Your task to perform on an android device: turn on location history Image 0: 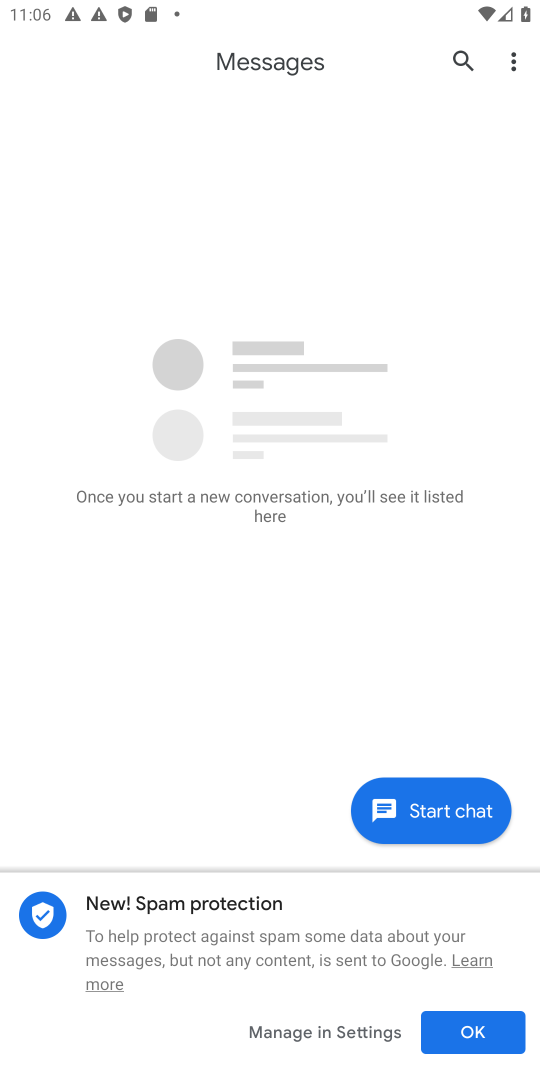
Step 0: press home button
Your task to perform on an android device: turn on location history Image 1: 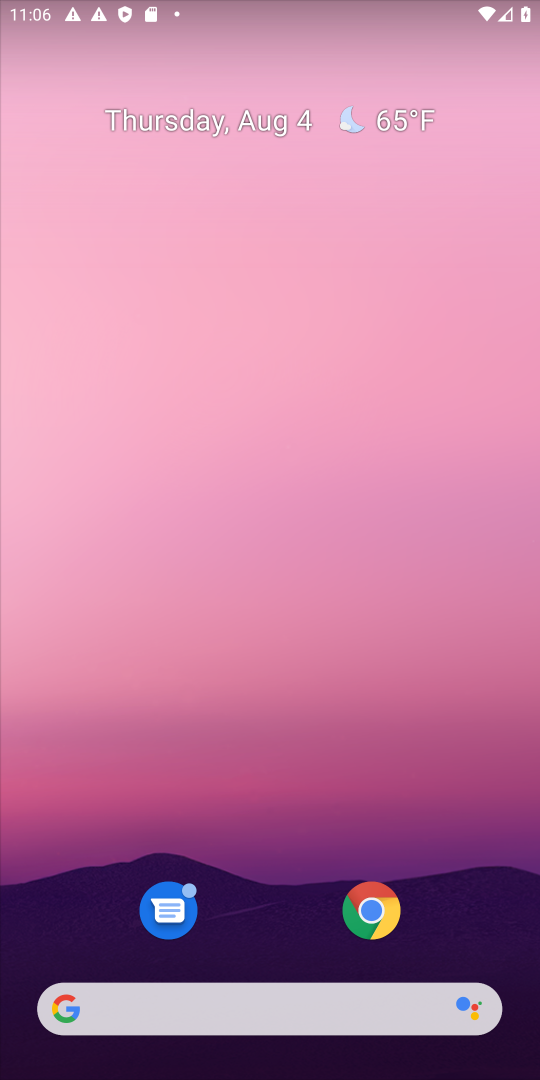
Step 1: drag from (240, 966) to (240, 329)
Your task to perform on an android device: turn on location history Image 2: 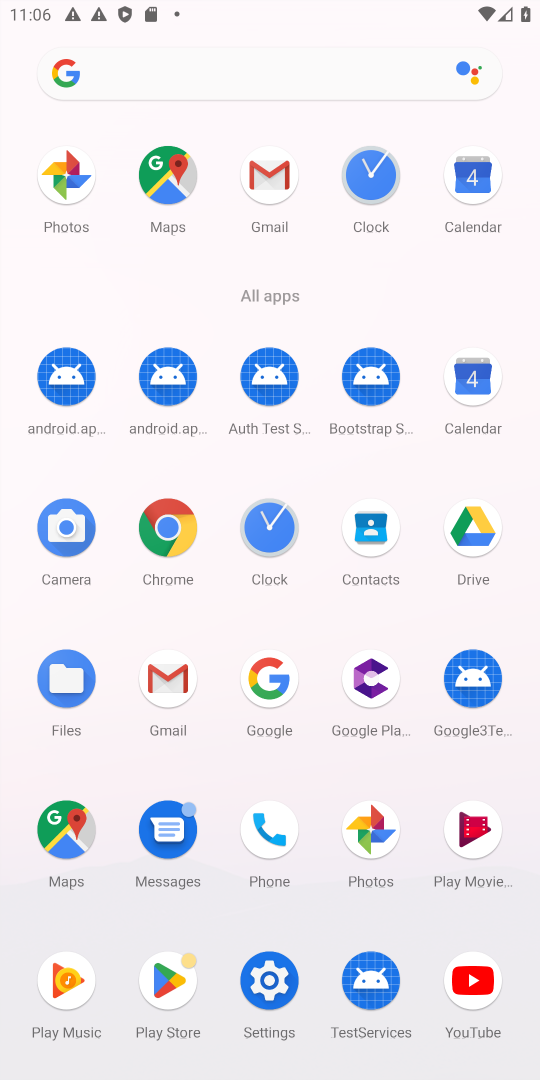
Step 2: click (284, 971)
Your task to perform on an android device: turn on location history Image 3: 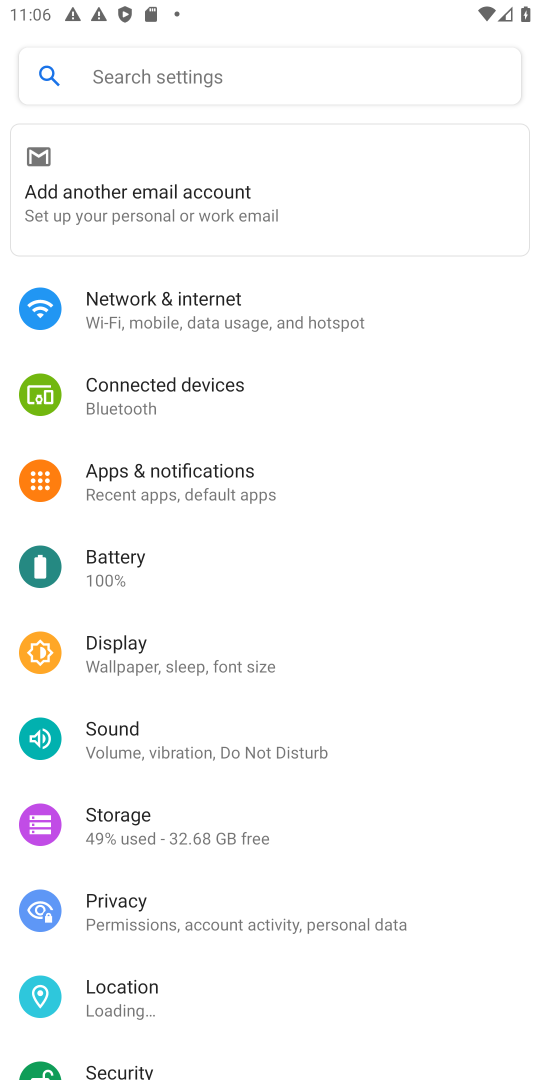
Step 3: click (141, 987)
Your task to perform on an android device: turn on location history Image 4: 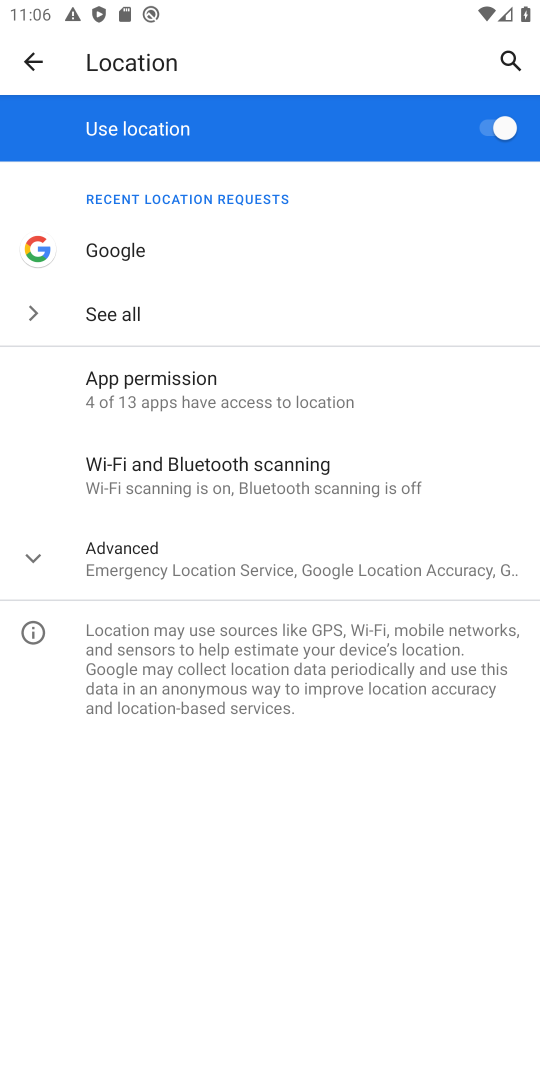
Step 4: click (169, 548)
Your task to perform on an android device: turn on location history Image 5: 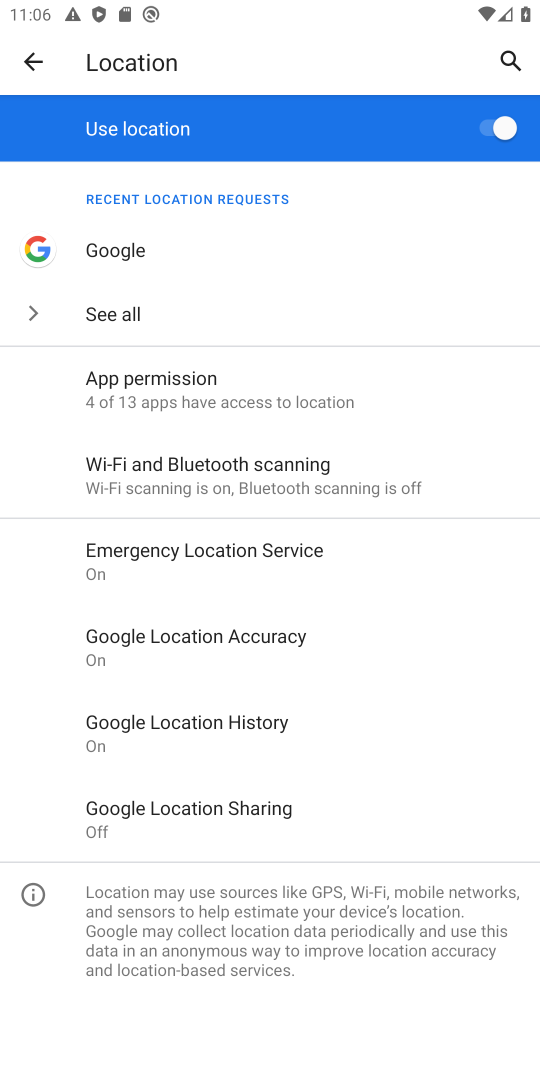
Step 5: click (201, 729)
Your task to perform on an android device: turn on location history Image 6: 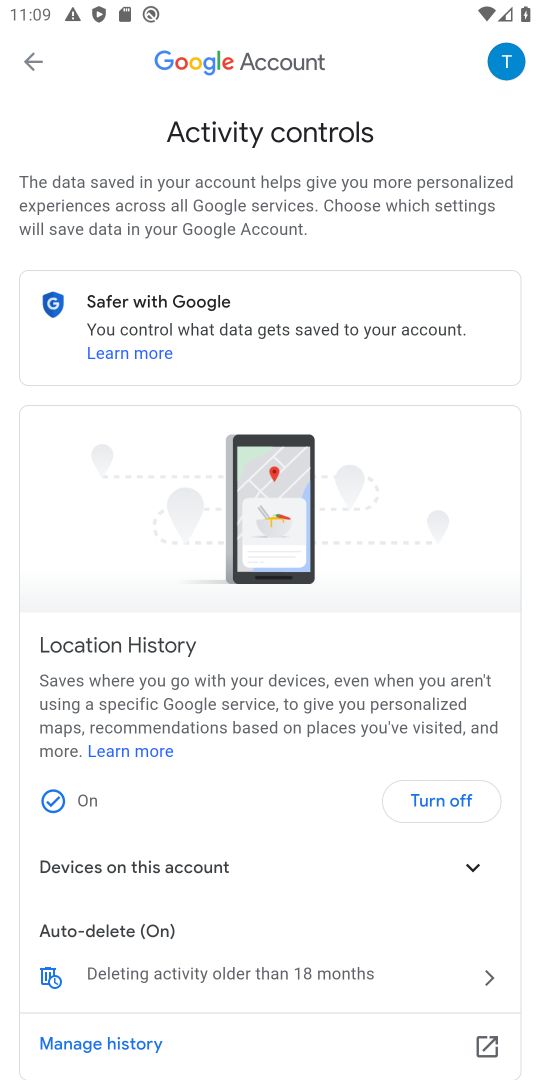
Step 6: task complete